Your task to perform on an android device: Open Reddit.com Image 0: 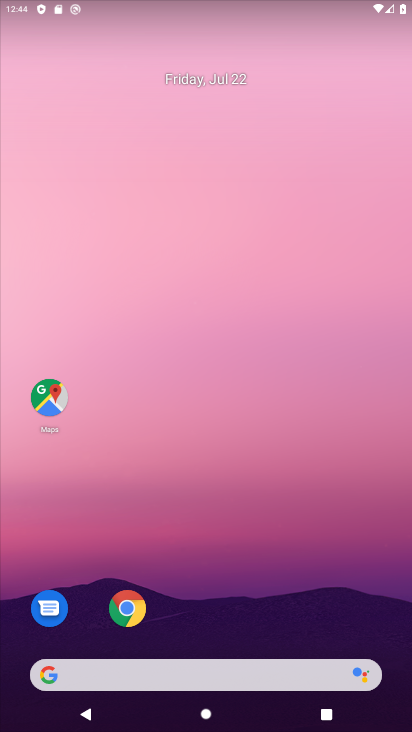
Step 0: click (126, 604)
Your task to perform on an android device: Open Reddit.com Image 1: 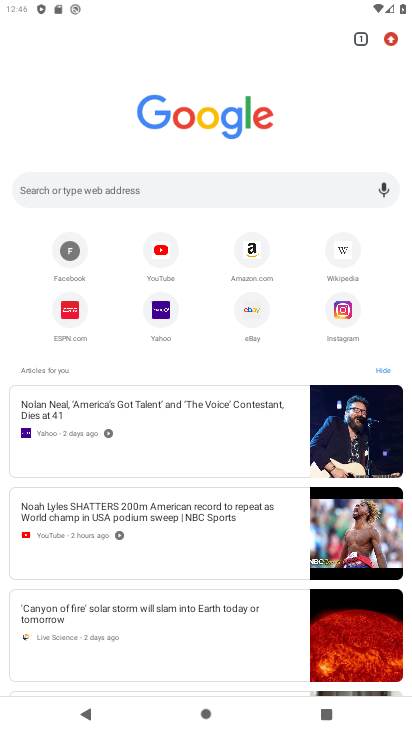
Step 1: click (200, 185)
Your task to perform on an android device: Open Reddit.com Image 2: 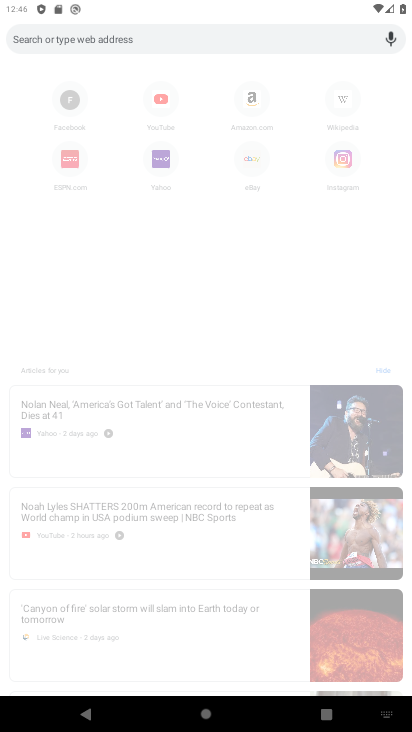
Step 2: type "Reddit.com"
Your task to perform on an android device: Open Reddit.com Image 3: 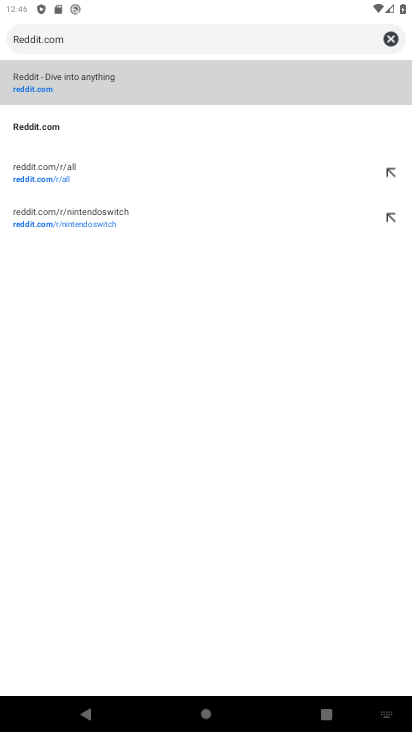
Step 3: click (33, 124)
Your task to perform on an android device: Open Reddit.com Image 4: 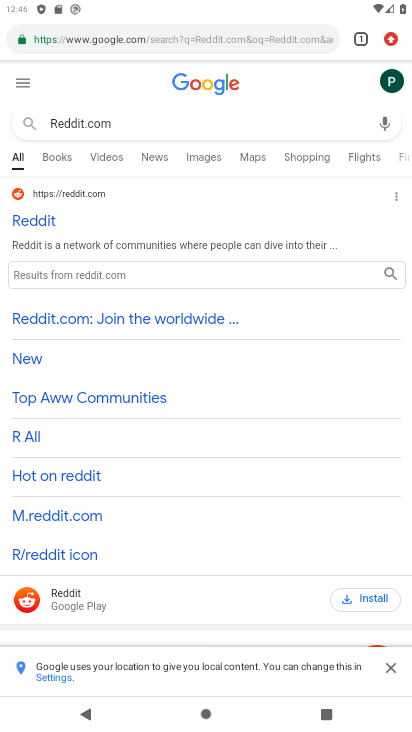
Step 4: task complete